Your task to perform on an android device: Go to internet settings Image 0: 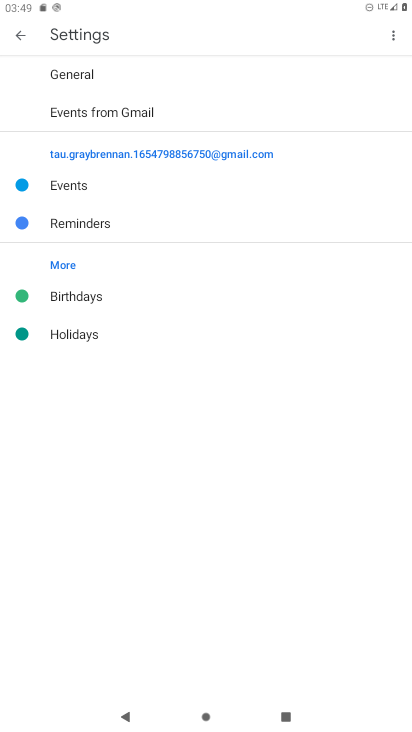
Step 0: press home button
Your task to perform on an android device: Go to internet settings Image 1: 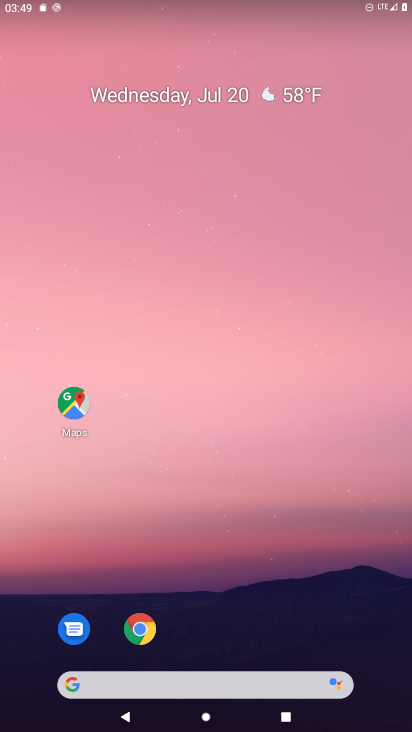
Step 1: drag from (257, 568) to (304, 171)
Your task to perform on an android device: Go to internet settings Image 2: 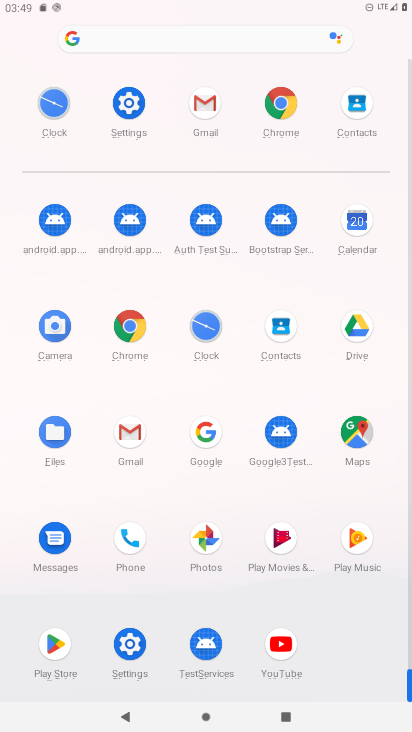
Step 2: click (228, 0)
Your task to perform on an android device: Go to internet settings Image 3: 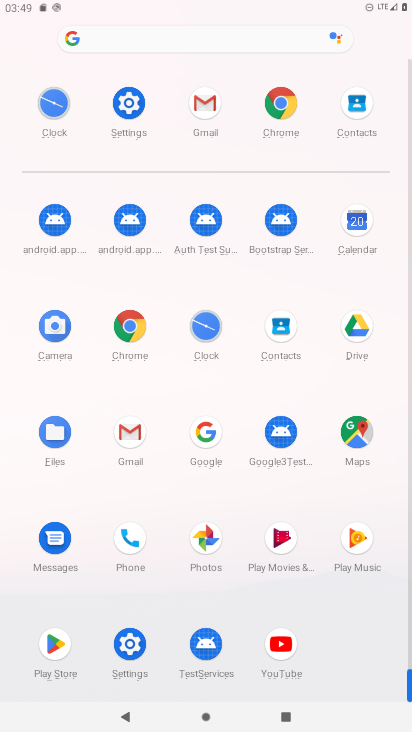
Step 3: click (119, 110)
Your task to perform on an android device: Go to internet settings Image 4: 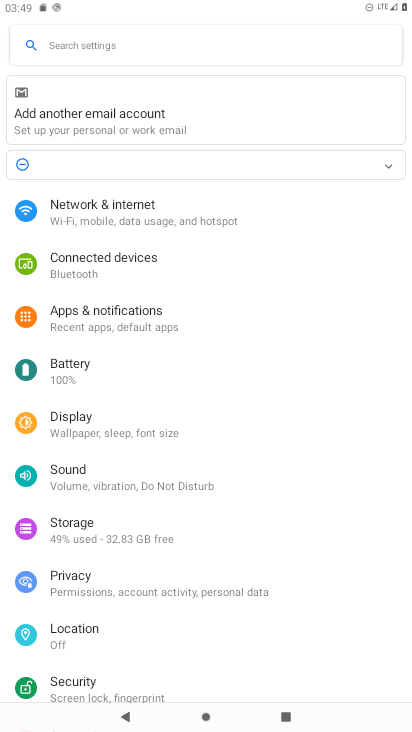
Step 4: click (80, 200)
Your task to perform on an android device: Go to internet settings Image 5: 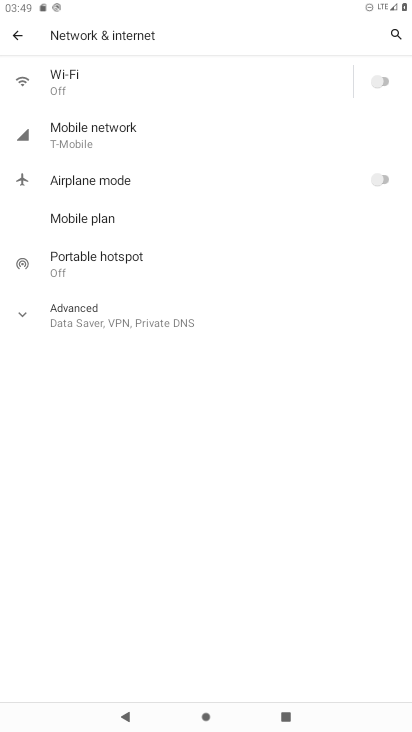
Step 5: click (78, 132)
Your task to perform on an android device: Go to internet settings Image 6: 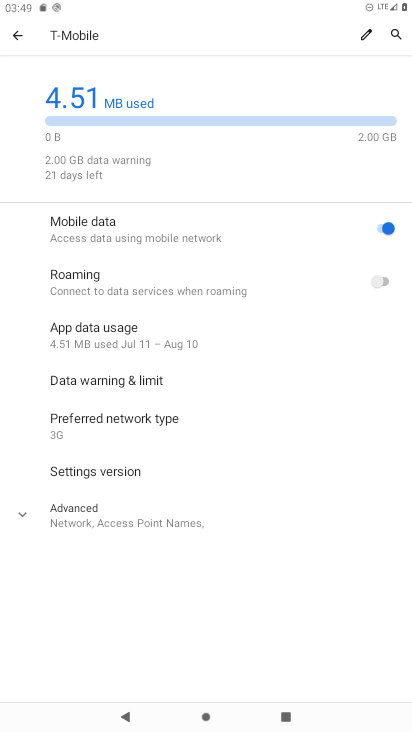
Step 6: task complete